Your task to perform on an android device: turn on wifi Image 0: 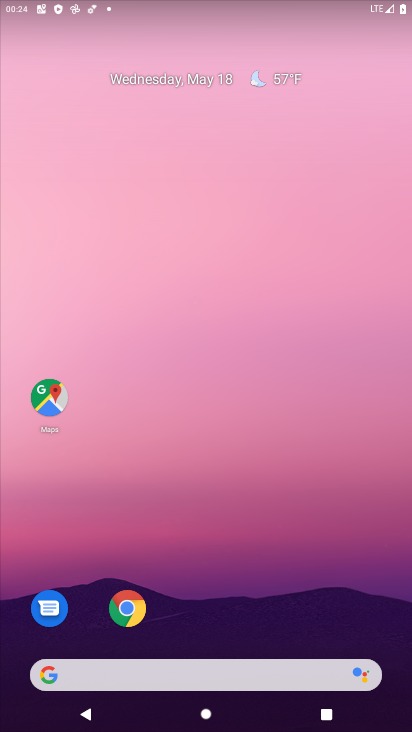
Step 0: drag from (254, 537) to (173, 88)
Your task to perform on an android device: turn on wifi Image 1: 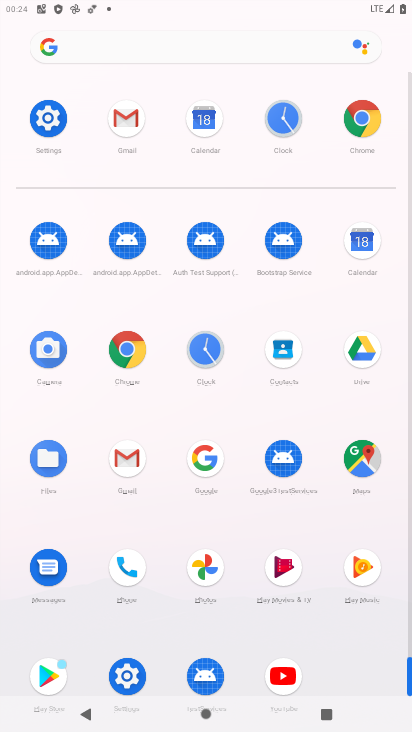
Step 1: click (47, 117)
Your task to perform on an android device: turn on wifi Image 2: 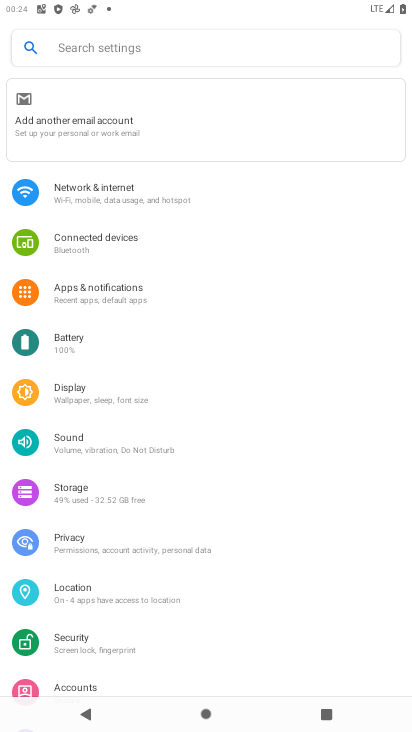
Step 2: click (88, 191)
Your task to perform on an android device: turn on wifi Image 3: 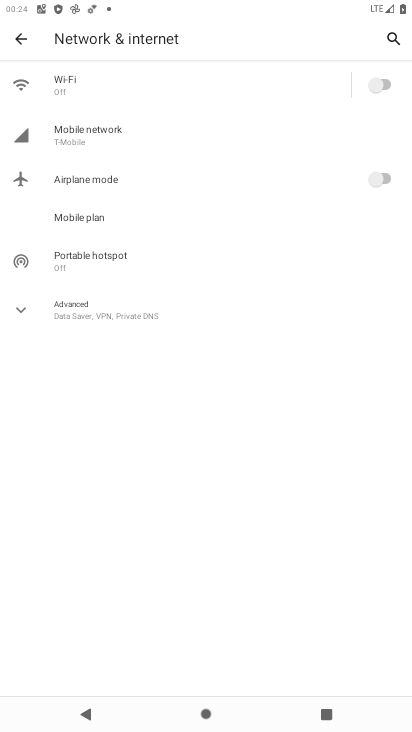
Step 3: click (376, 77)
Your task to perform on an android device: turn on wifi Image 4: 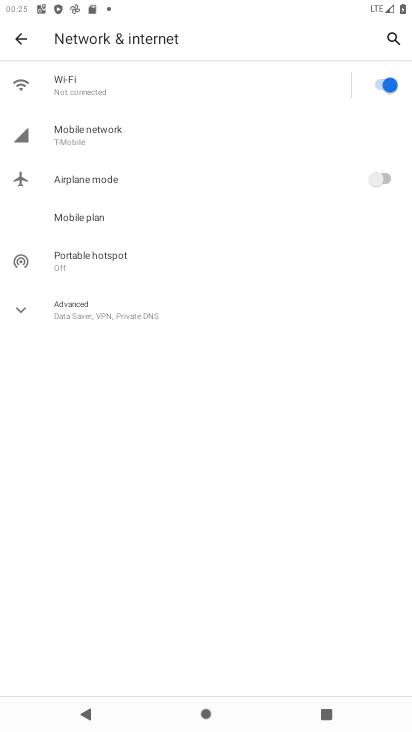
Step 4: task complete